Your task to perform on an android device: search for starred emails in the gmail app Image 0: 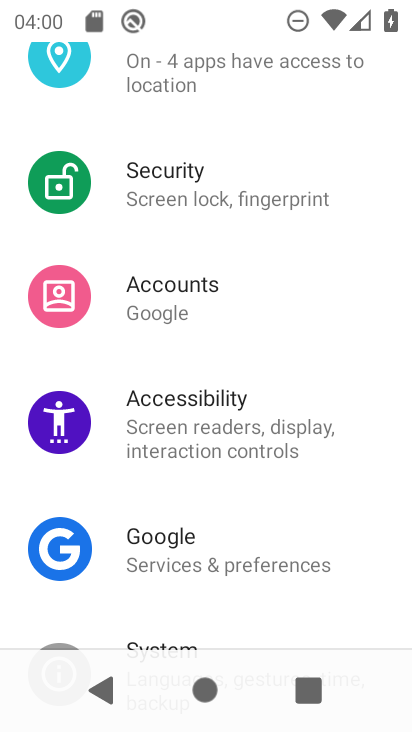
Step 0: press home button
Your task to perform on an android device: search for starred emails in the gmail app Image 1: 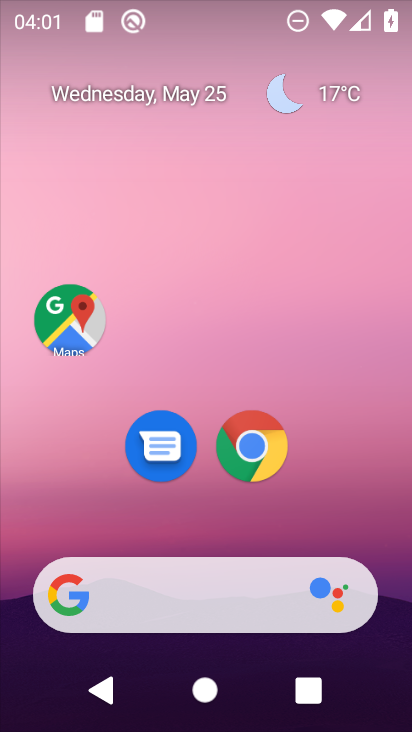
Step 1: drag from (249, 608) to (233, 146)
Your task to perform on an android device: search for starred emails in the gmail app Image 2: 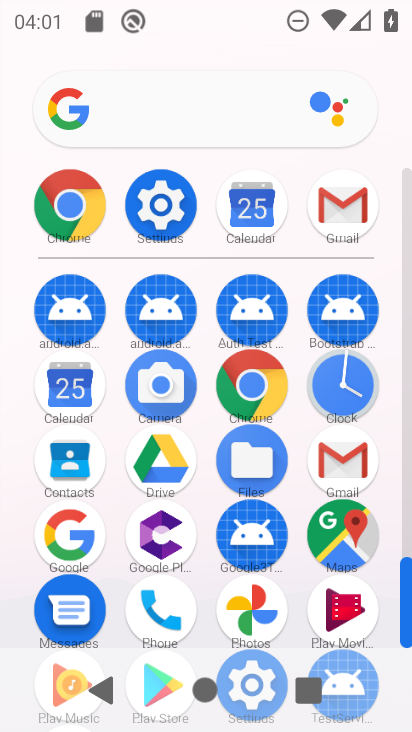
Step 2: click (331, 460)
Your task to perform on an android device: search for starred emails in the gmail app Image 3: 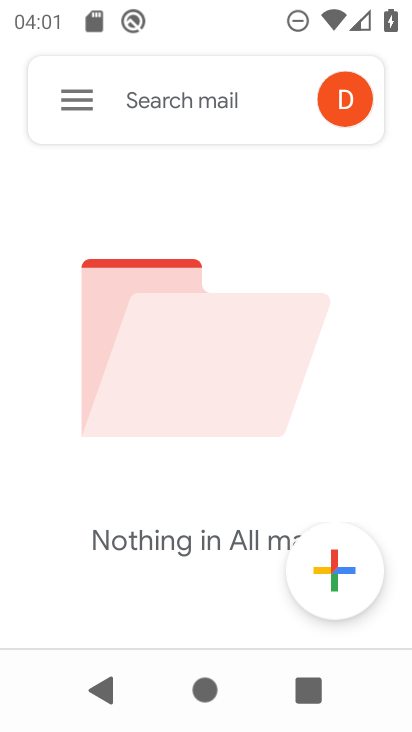
Step 3: click (78, 116)
Your task to perform on an android device: search for starred emails in the gmail app Image 4: 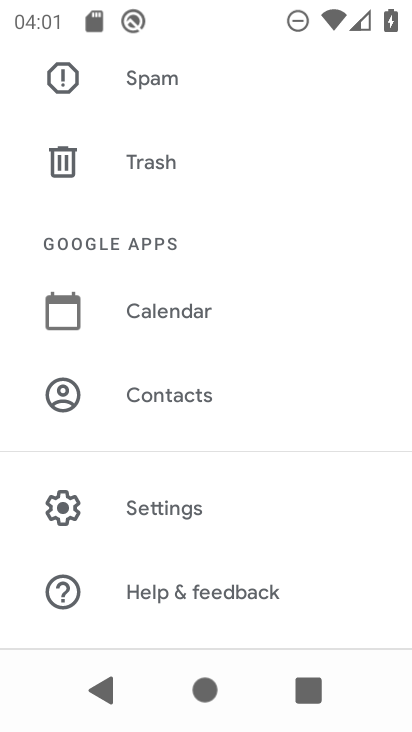
Step 4: drag from (132, 138) to (168, 567)
Your task to perform on an android device: search for starred emails in the gmail app Image 5: 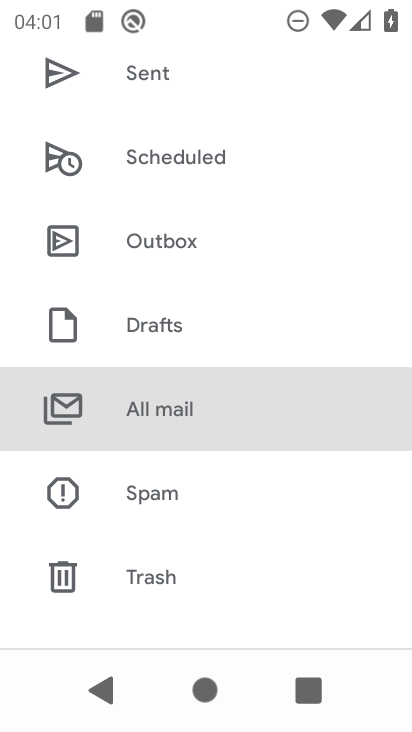
Step 5: drag from (164, 185) to (191, 518)
Your task to perform on an android device: search for starred emails in the gmail app Image 6: 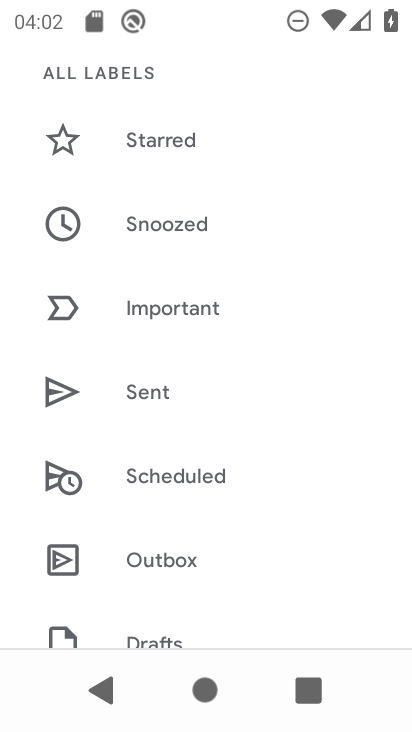
Step 6: click (135, 141)
Your task to perform on an android device: search for starred emails in the gmail app Image 7: 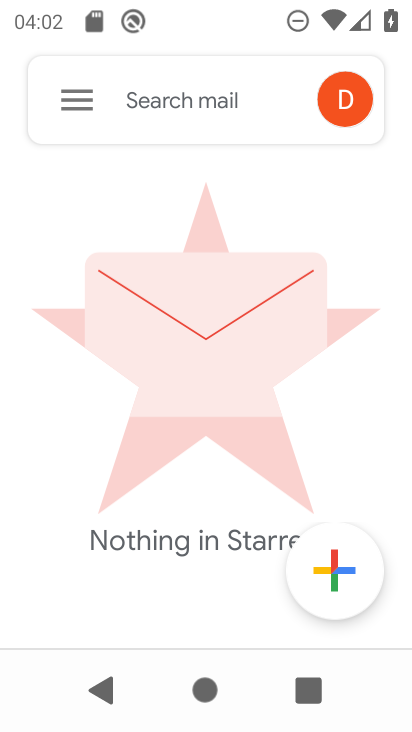
Step 7: task complete